Your task to perform on an android device: Open Youtube and go to the subscriptions tab Image 0: 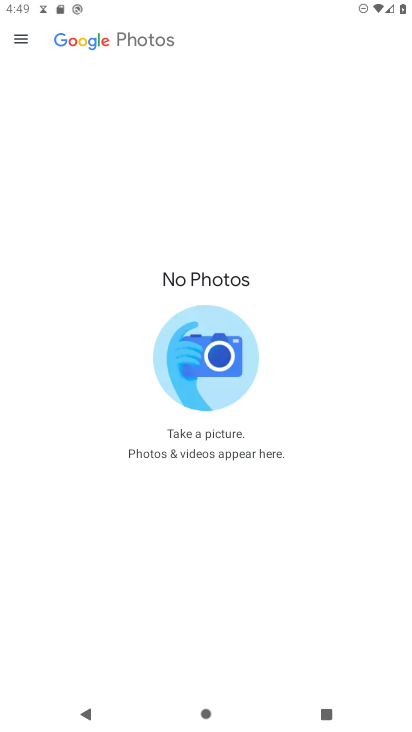
Step 0: press home button
Your task to perform on an android device: Open Youtube and go to the subscriptions tab Image 1: 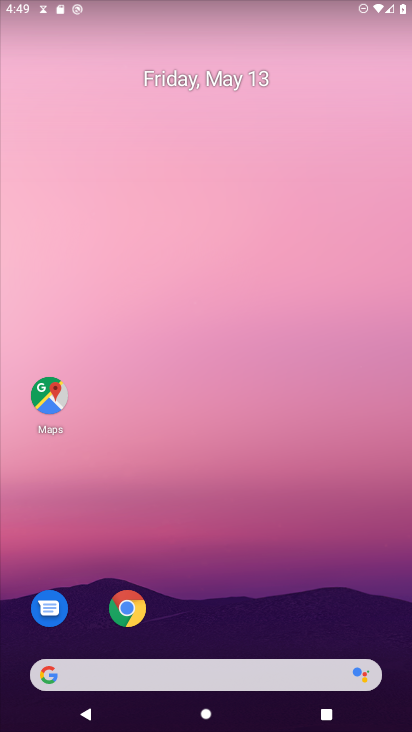
Step 1: drag from (290, 673) to (303, 5)
Your task to perform on an android device: Open Youtube and go to the subscriptions tab Image 2: 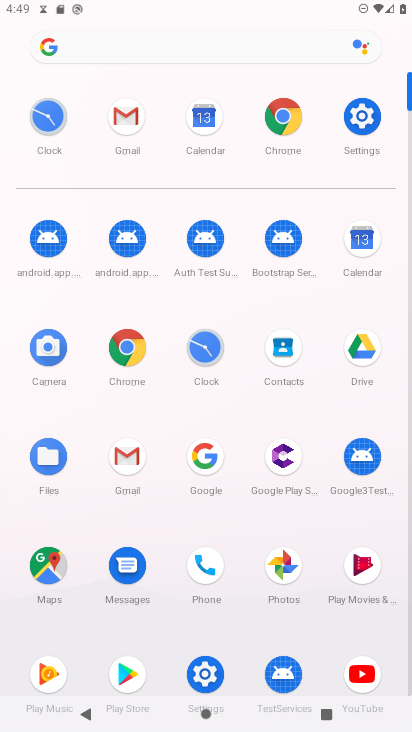
Step 2: click (364, 666)
Your task to perform on an android device: Open Youtube and go to the subscriptions tab Image 3: 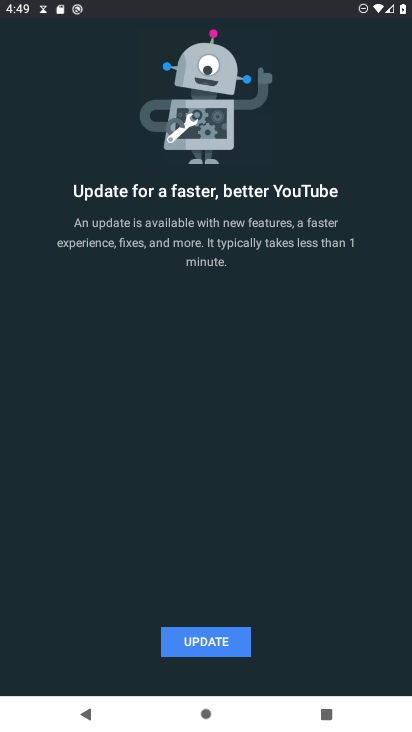
Step 3: click (224, 642)
Your task to perform on an android device: Open Youtube and go to the subscriptions tab Image 4: 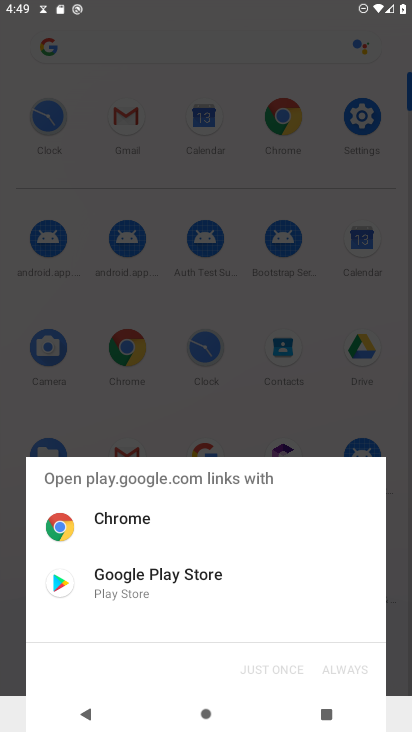
Step 4: click (165, 592)
Your task to perform on an android device: Open Youtube and go to the subscriptions tab Image 5: 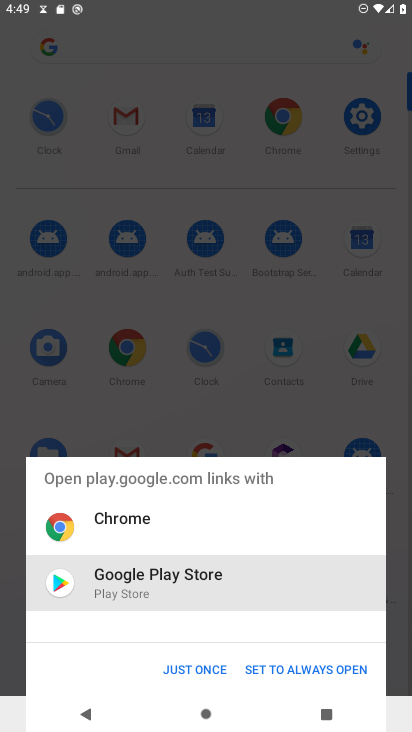
Step 5: click (212, 671)
Your task to perform on an android device: Open Youtube and go to the subscriptions tab Image 6: 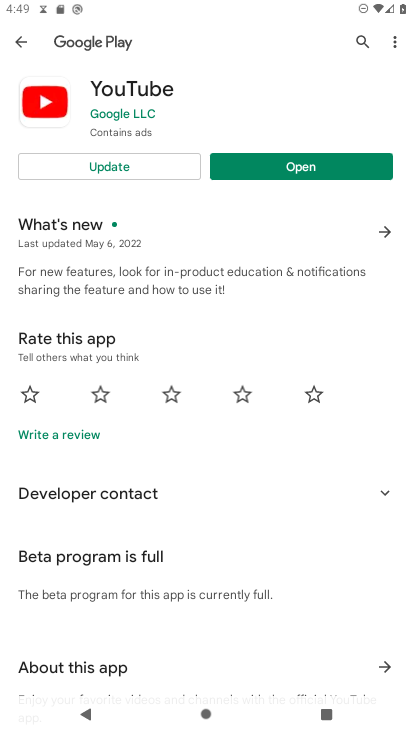
Step 6: click (165, 166)
Your task to perform on an android device: Open Youtube and go to the subscriptions tab Image 7: 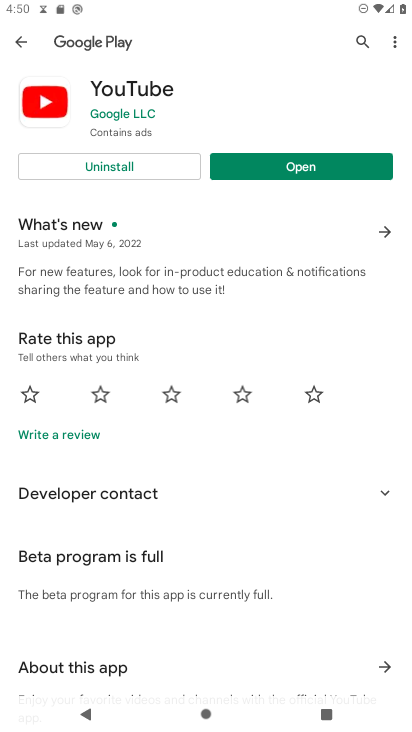
Step 7: click (306, 164)
Your task to perform on an android device: Open Youtube and go to the subscriptions tab Image 8: 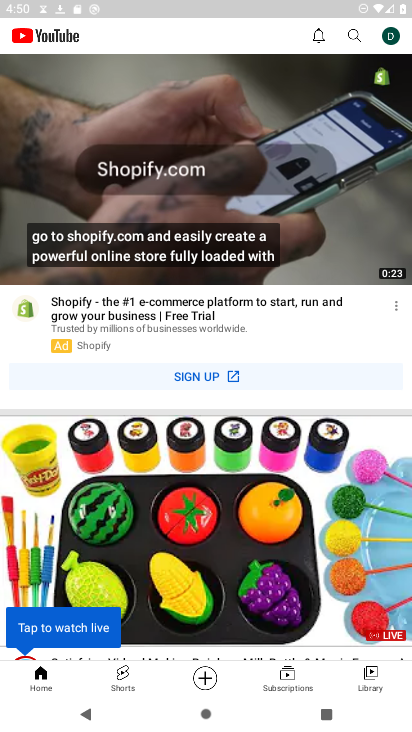
Step 8: click (291, 679)
Your task to perform on an android device: Open Youtube and go to the subscriptions tab Image 9: 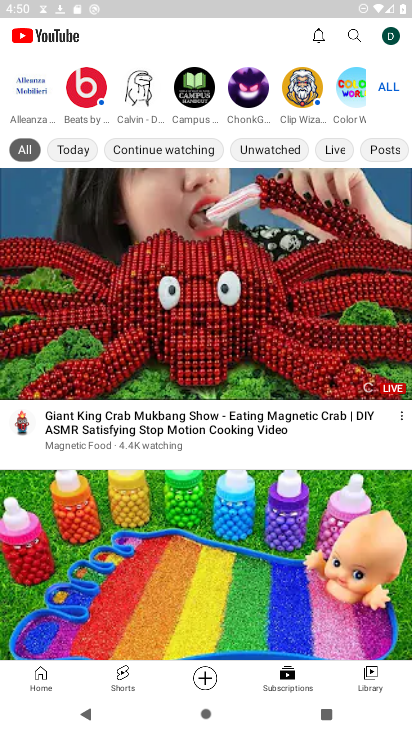
Step 9: task complete